Your task to perform on an android device: turn on location history Image 0: 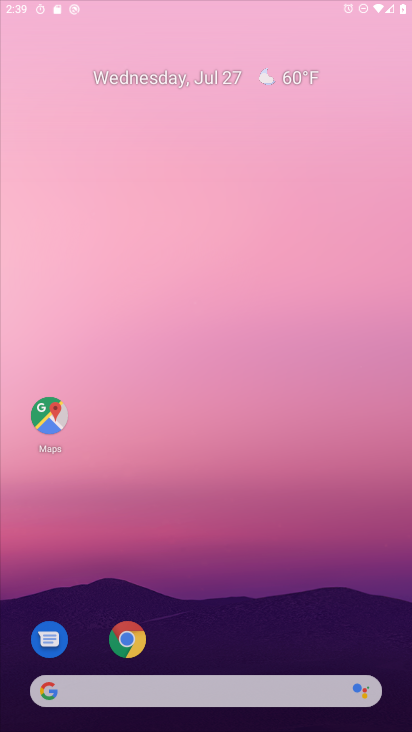
Step 0: drag from (229, 205) to (230, 289)
Your task to perform on an android device: turn on location history Image 1: 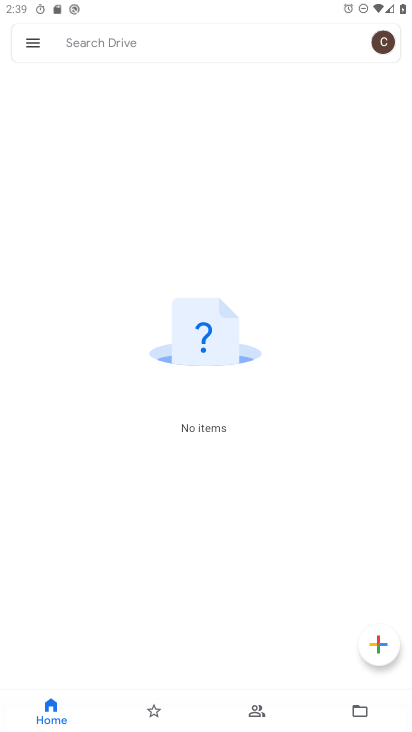
Step 1: press home button
Your task to perform on an android device: turn on location history Image 2: 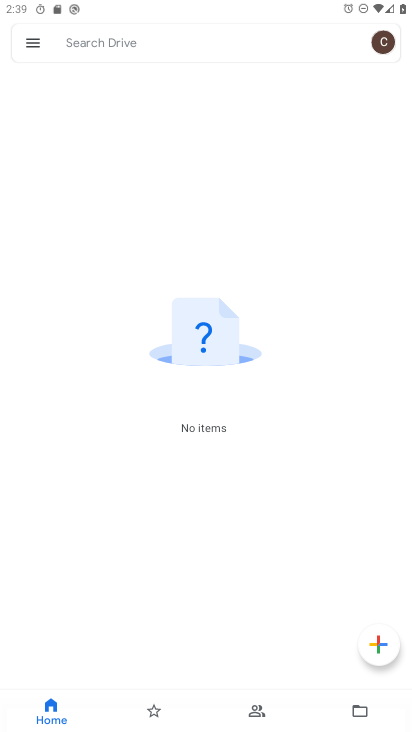
Step 2: press home button
Your task to perform on an android device: turn on location history Image 3: 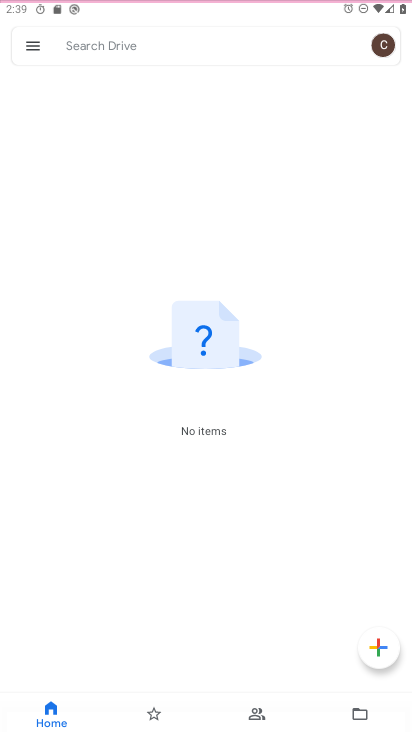
Step 3: click (295, 204)
Your task to perform on an android device: turn on location history Image 4: 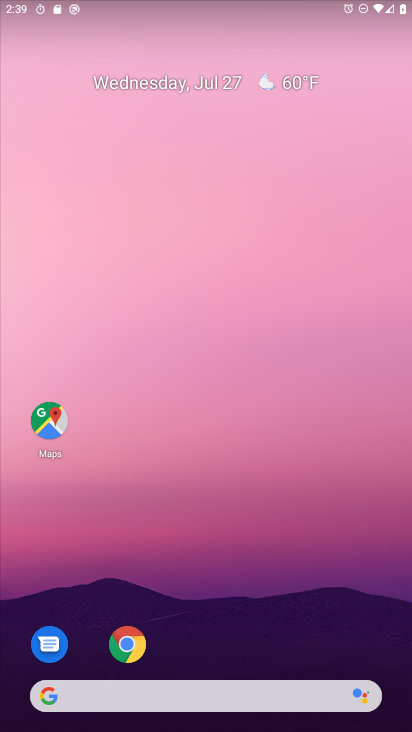
Step 4: drag from (217, 653) to (353, 192)
Your task to perform on an android device: turn on location history Image 5: 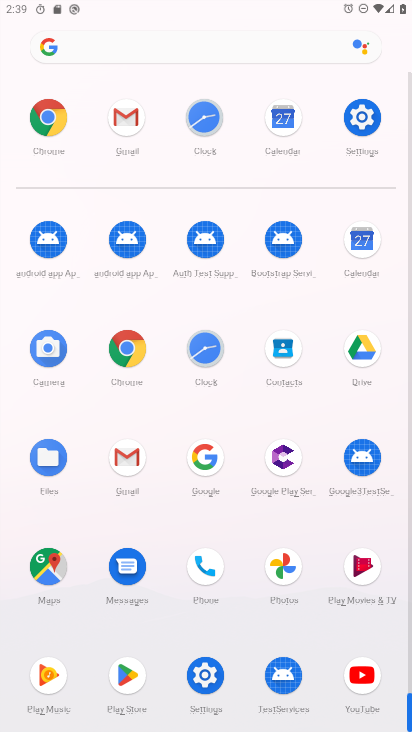
Step 5: click (350, 132)
Your task to perform on an android device: turn on location history Image 6: 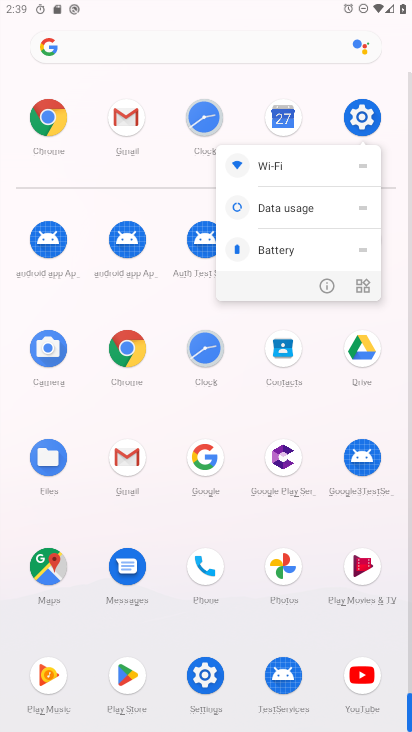
Step 6: click (320, 288)
Your task to perform on an android device: turn on location history Image 7: 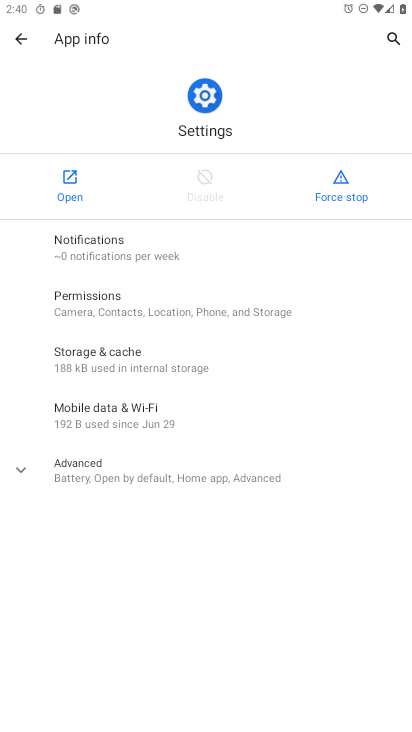
Step 7: click (74, 195)
Your task to perform on an android device: turn on location history Image 8: 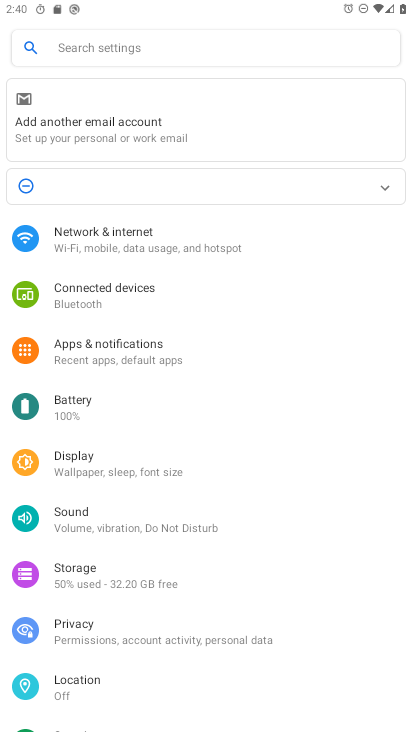
Step 8: drag from (139, 643) to (200, 336)
Your task to perform on an android device: turn on location history Image 9: 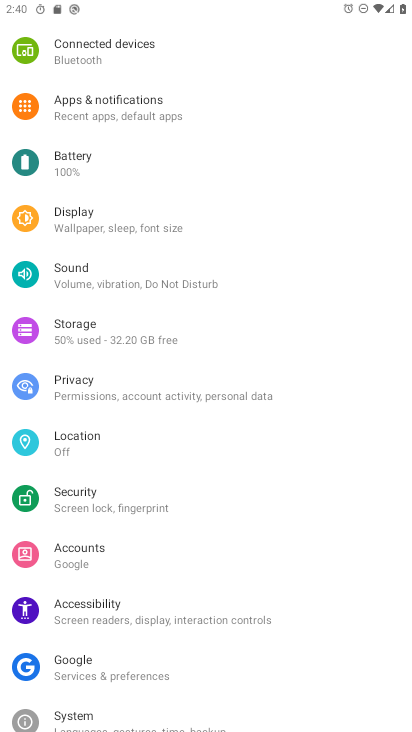
Step 9: click (96, 438)
Your task to perform on an android device: turn on location history Image 10: 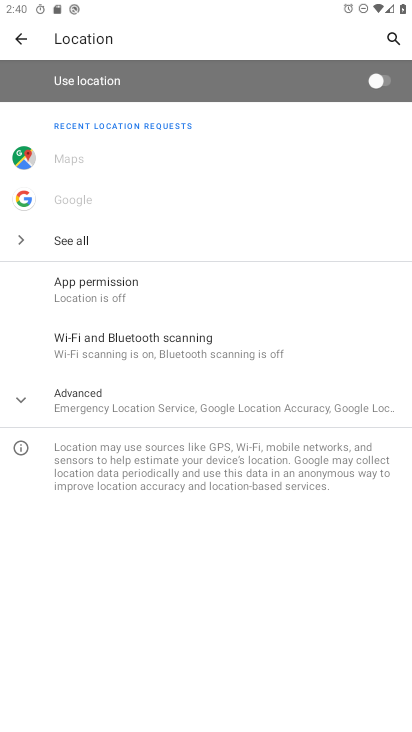
Step 10: click (84, 407)
Your task to perform on an android device: turn on location history Image 11: 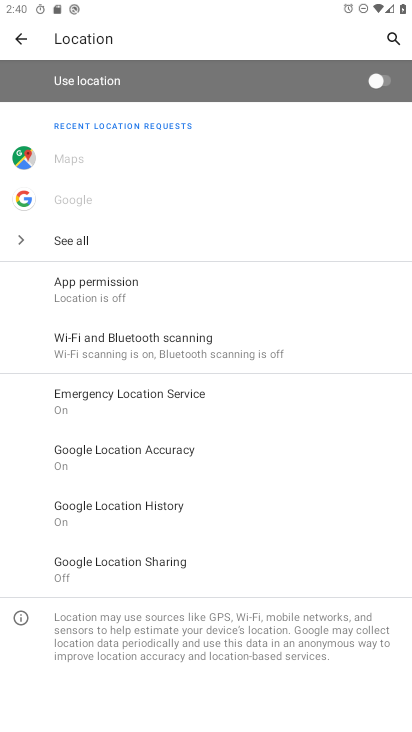
Step 11: click (142, 523)
Your task to perform on an android device: turn on location history Image 12: 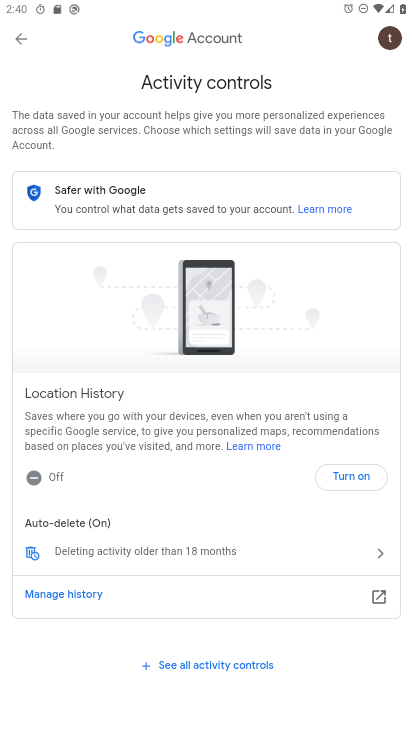
Step 12: drag from (75, 560) to (161, 323)
Your task to perform on an android device: turn on location history Image 13: 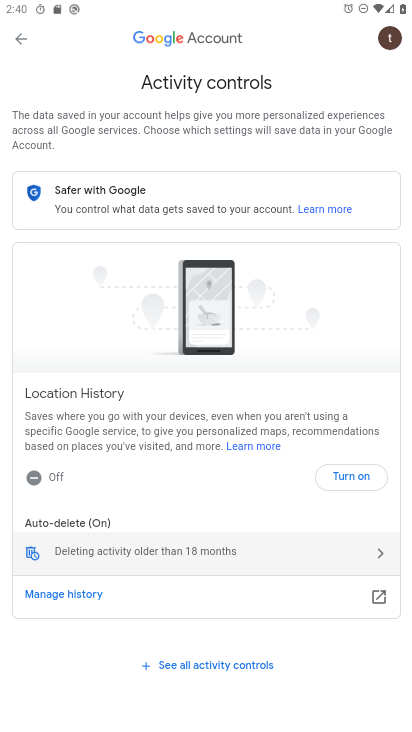
Step 13: drag from (170, 557) to (157, 412)
Your task to perform on an android device: turn on location history Image 14: 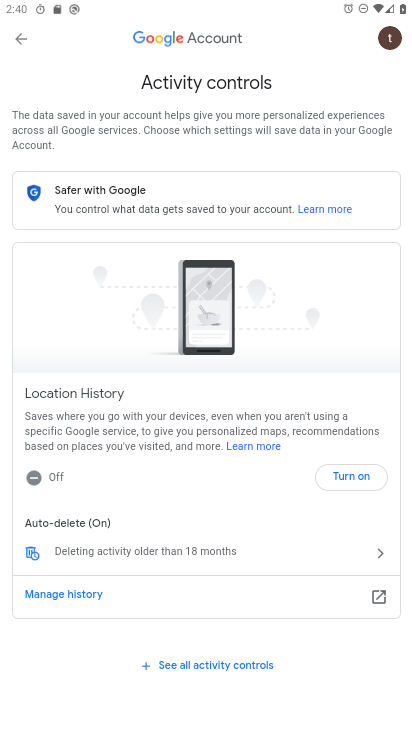
Step 14: click (329, 473)
Your task to perform on an android device: turn on location history Image 15: 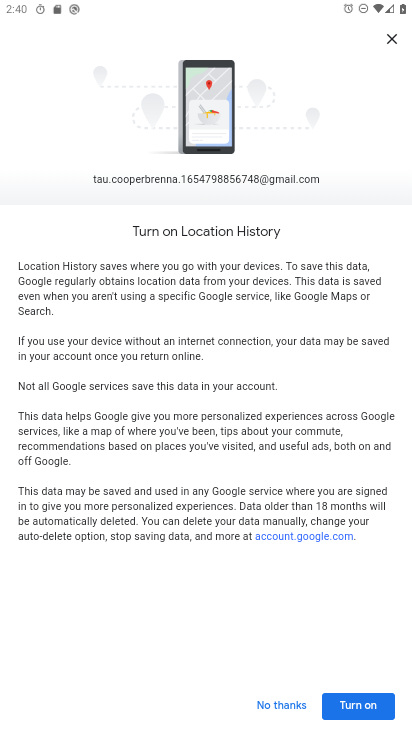
Step 15: drag from (268, 427) to (304, 298)
Your task to perform on an android device: turn on location history Image 16: 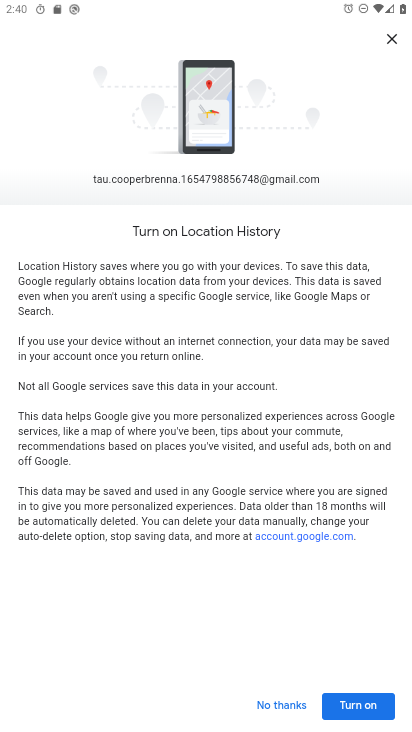
Step 16: click (353, 708)
Your task to perform on an android device: turn on location history Image 17: 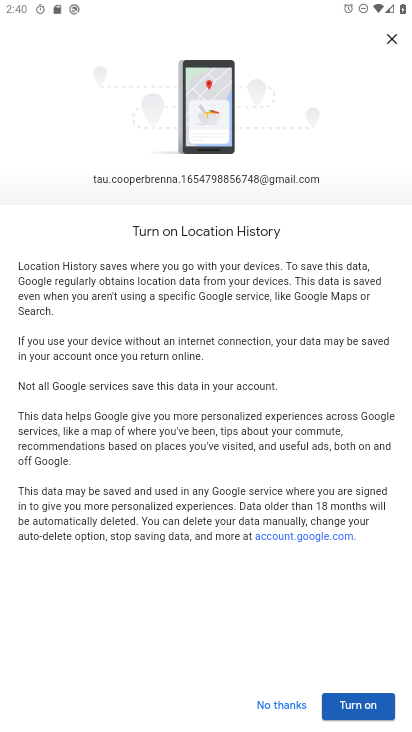
Step 17: click (359, 696)
Your task to perform on an android device: turn on location history Image 18: 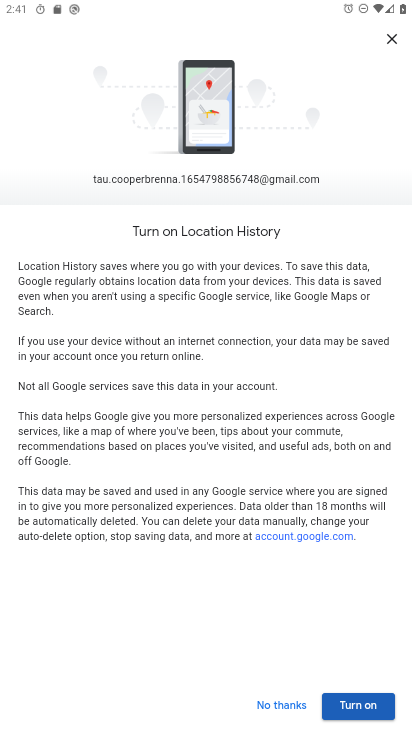
Step 18: click (341, 706)
Your task to perform on an android device: turn on location history Image 19: 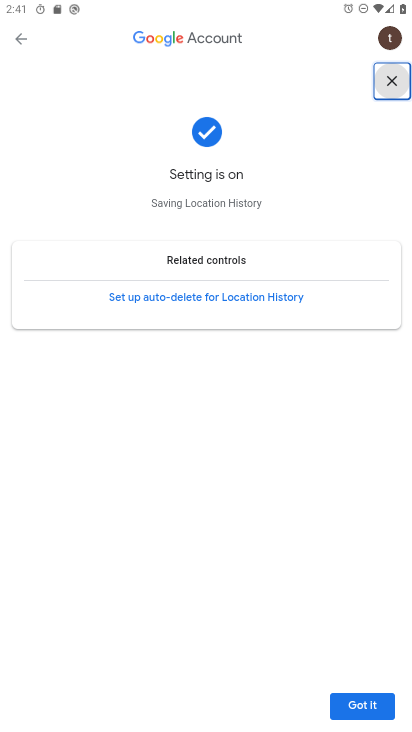
Step 19: task complete